Your task to perform on an android device: see tabs open on other devices in the chrome app Image 0: 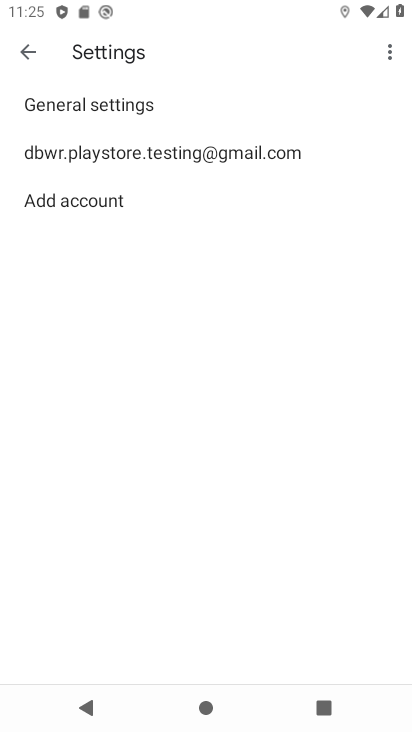
Step 0: press home button
Your task to perform on an android device: see tabs open on other devices in the chrome app Image 1: 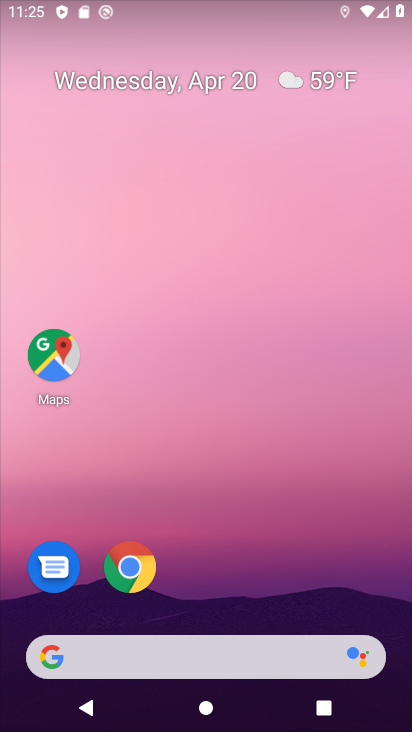
Step 1: click (123, 568)
Your task to perform on an android device: see tabs open on other devices in the chrome app Image 2: 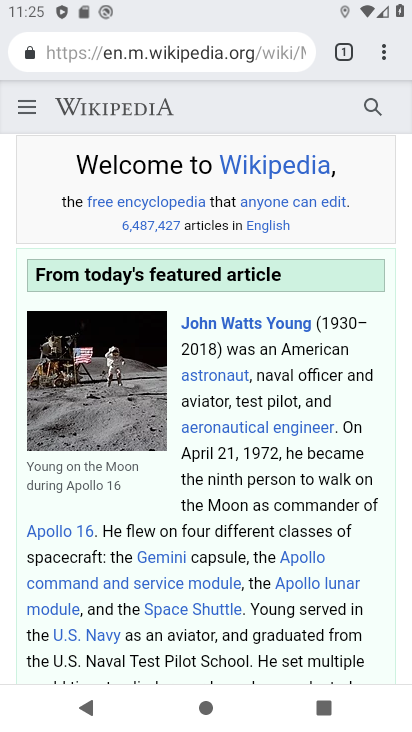
Step 2: click (377, 47)
Your task to perform on an android device: see tabs open on other devices in the chrome app Image 3: 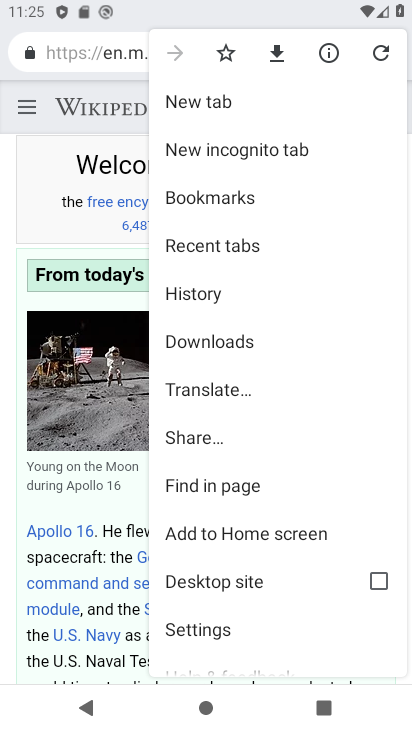
Step 3: click (228, 249)
Your task to perform on an android device: see tabs open on other devices in the chrome app Image 4: 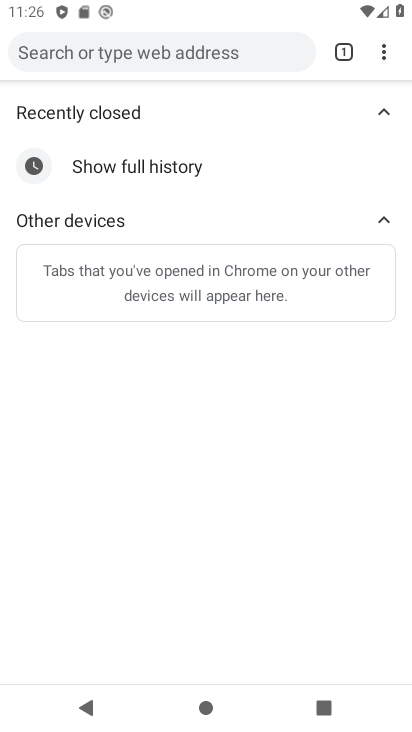
Step 4: task complete